Your task to perform on an android device: toggle priority inbox in the gmail app Image 0: 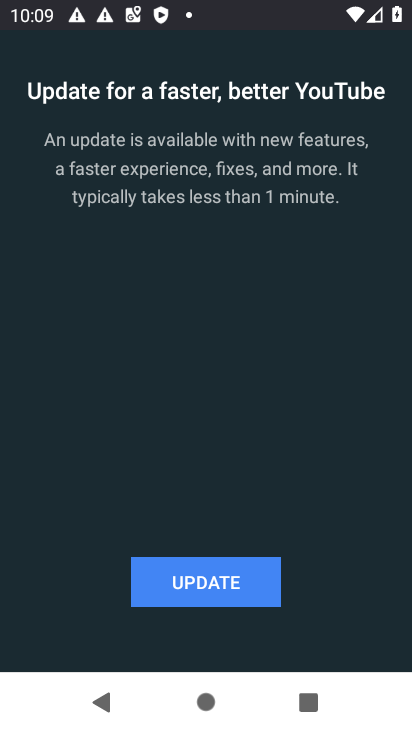
Step 0: press back button
Your task to perform on an android device: toggle priority inbox in the gmail app Image 1: 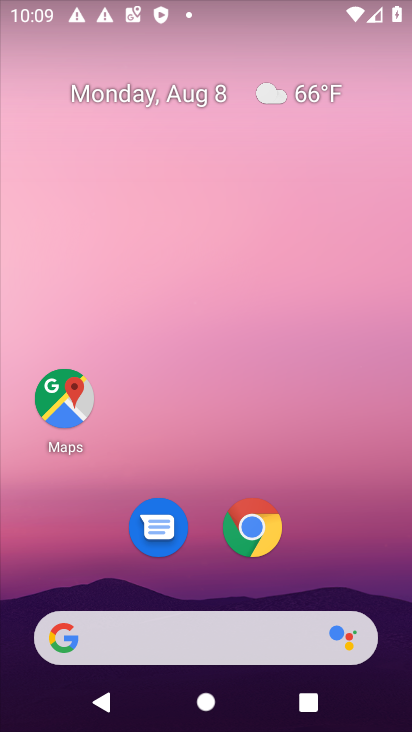
Step 1: drag from (402, 725) to (311, 244)
Your task to perform on an android device: toggle priority inbox in the gmail app Image 2: 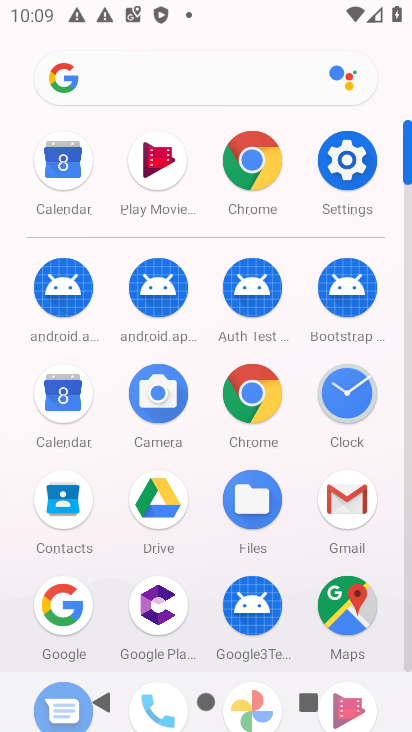
Step 2: click (344, 505)
Your task to perform on an android device: toggle priority inbox in the gmail app Image 3: 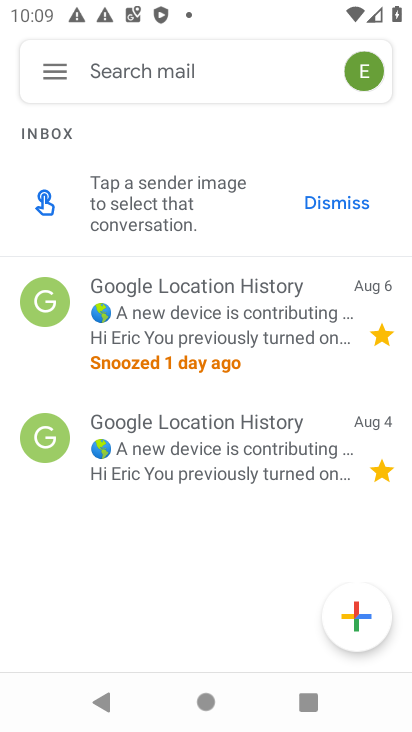
Step 3: click (61, 62)
Your task to perform on an android device: toggle priority inbox in the gmail app Image 4: 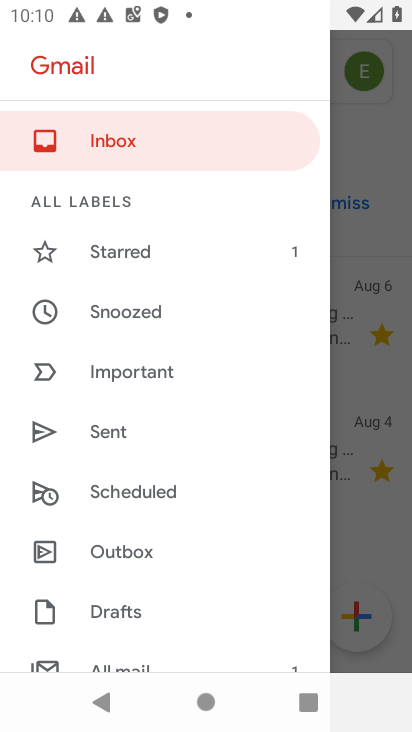
Step 4: drag from (231, 623) to (231, 285)
Your task to perform on an android device: toggle priority inbox in the gmail app Image 5: 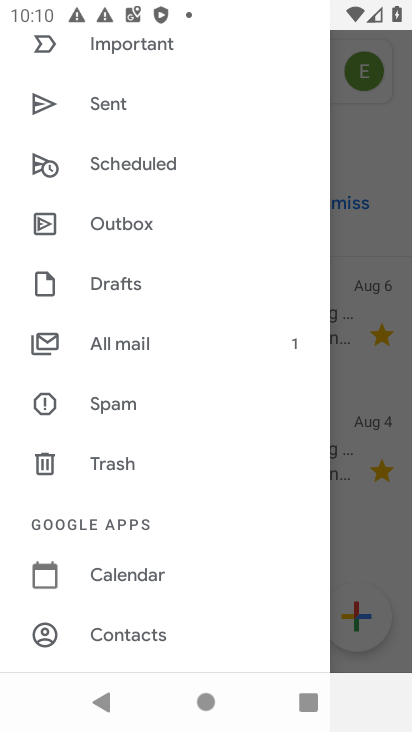
Step 5: drag from (239, 607) to (228, 247)
Your task to perform on an android device: toggle priority inbox in the gmail app Image 6: 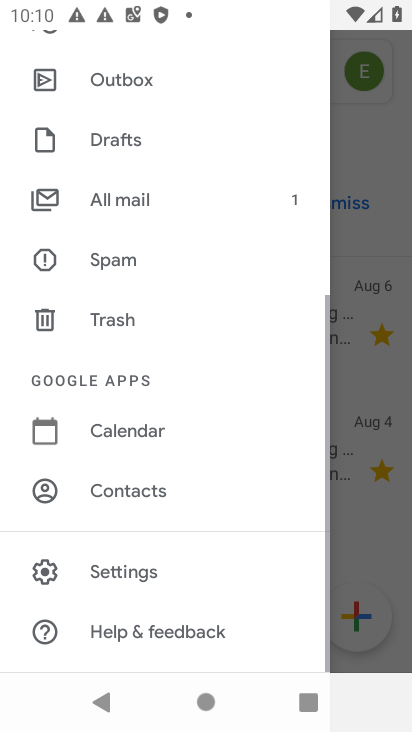
Step 6: click (127, 571)
Your task to perform on an android device: toggle priority inbox in the gmail app Image 7: 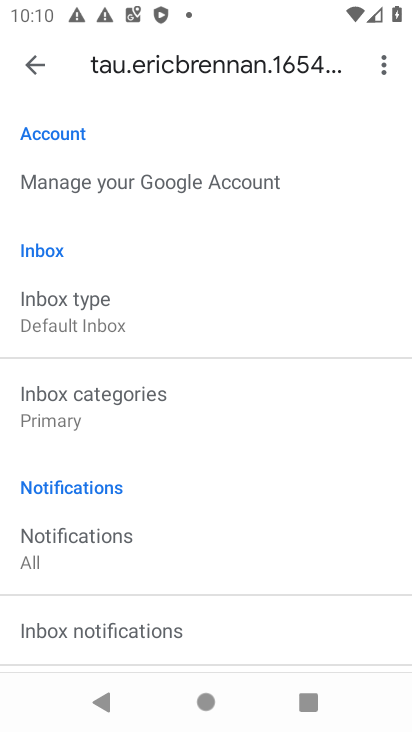
Step 7: click (66, 303)
Your task to perform on an android device: toggle priority inbox in the gmail app Image 8: 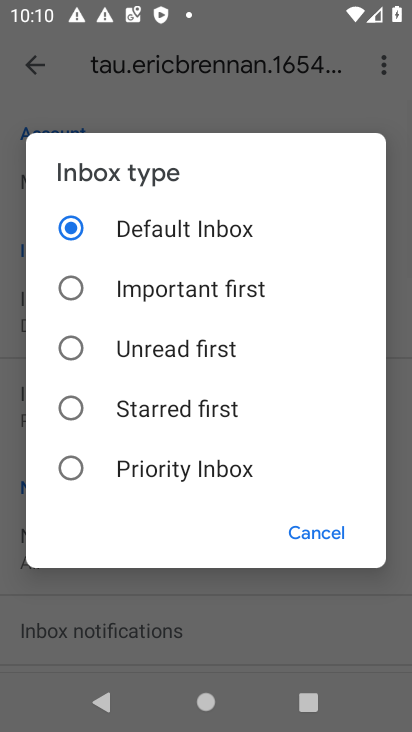
Step 8: click (73, 468)
Your task to perform on an android device: toggle priority inbox in the gmail app Image 9: 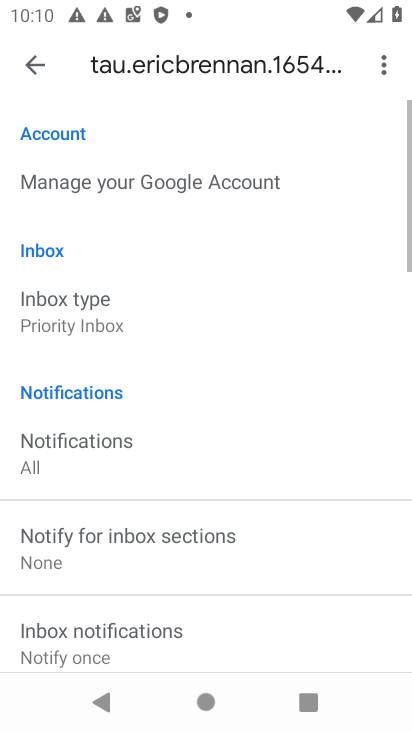
Step 9: task complete